Your task to perform on an android device: Search for seafood restaurants on Google Maps Image 0: 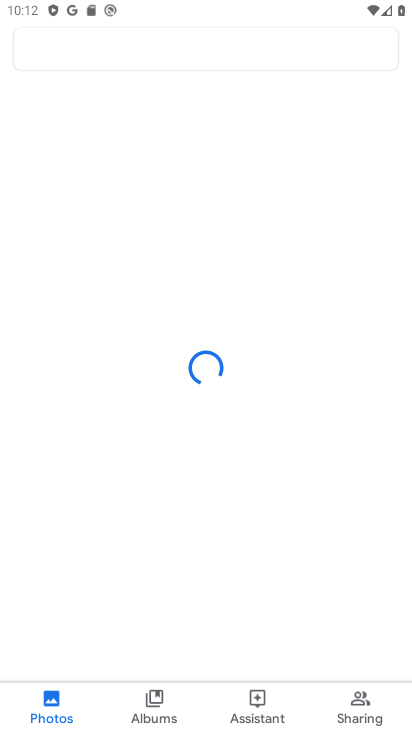
Step 0: press home button
Your task to perform on an android device: Search for seafood restaurants on Google Maps Image 1: 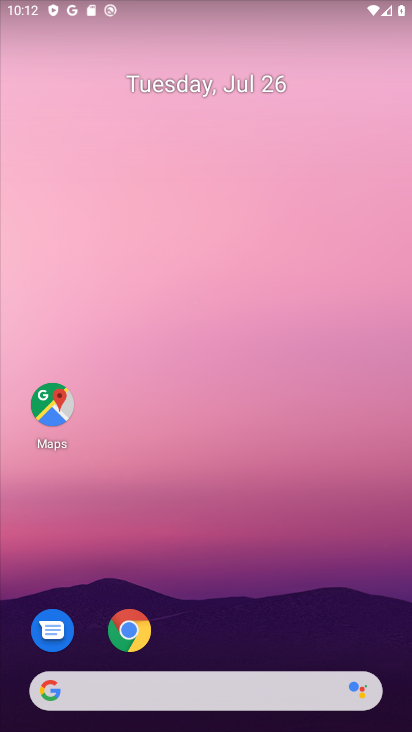
Step 1: click (50, 407)
Your task to perform on an android device: Search for seafood restaurants on Google Maps Image 2: 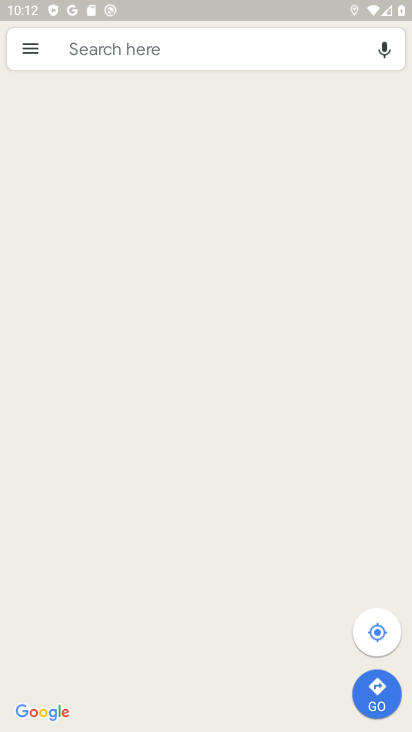
Step 2: click (226, 49)
Your task to perform on an android device: Search for seafood restaurants on Google Maps Image 3: 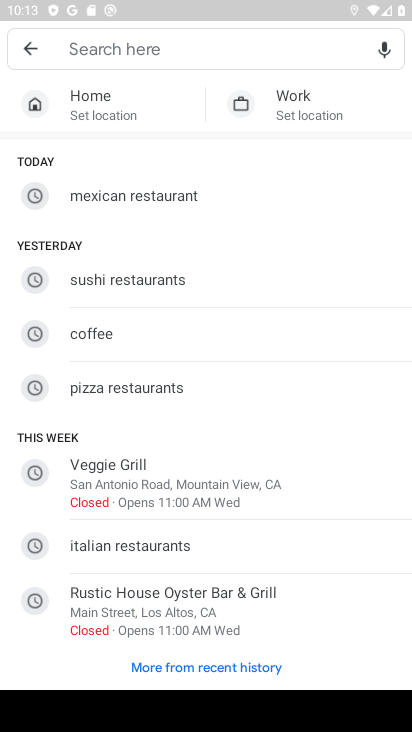
Step 3: type "seafood restaurants"
Your task to perform on an android device: Search for seafood restaurants on Google Maps Image 4: 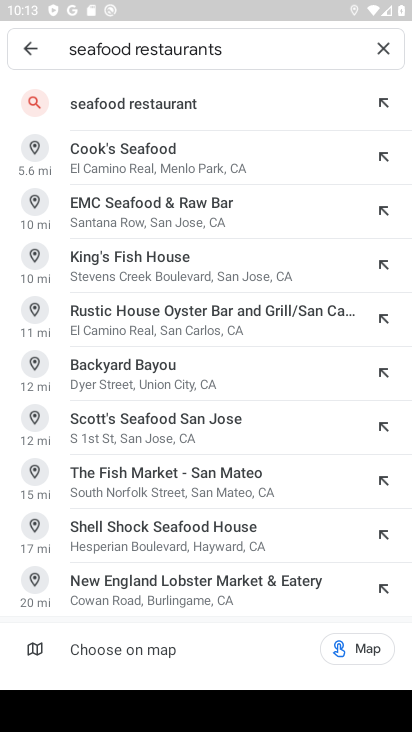
Step 4: click (121, 103)
Your task to perform on an android device: Search for seafood restaurants on Google Maps Image 5: 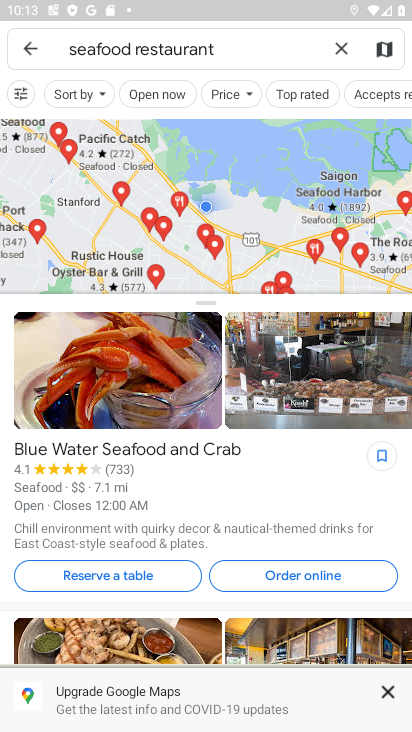
Step 5: task complete